Your task to perform on an android device: toggle pop-ups in chrome Image 0: 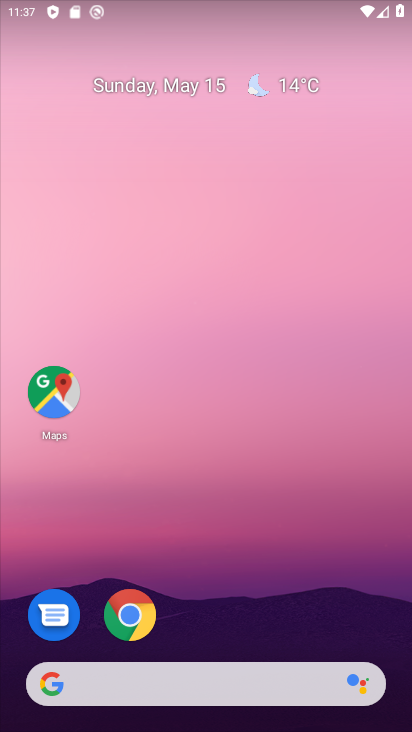
Step 0: drag from (301, 537) to (218, 73)
Your task to perform on an android device: toggle pop-ups in chrome Image 1: 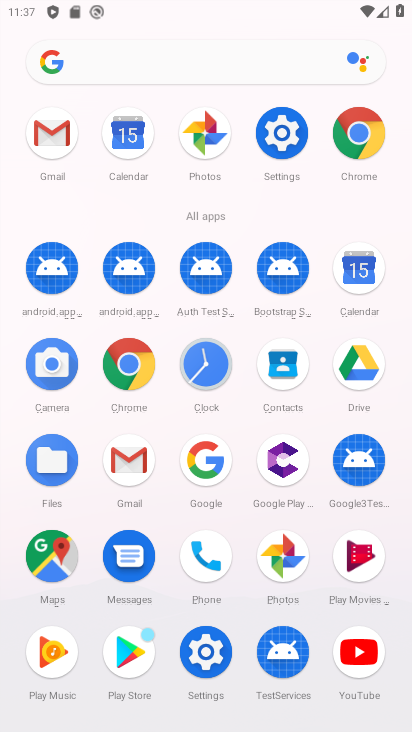
Step 1: click (375, 146)
Your task to perform on an android device: toggle pop-ups in chrome Image 2: 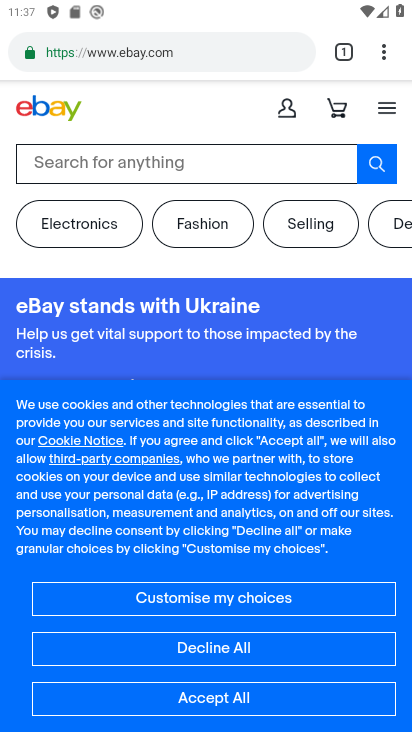
Step 2: drag from (386, 49) to (196, 624)
Your task to perform on an android device: toggle pop-ups in chrome Image 3: 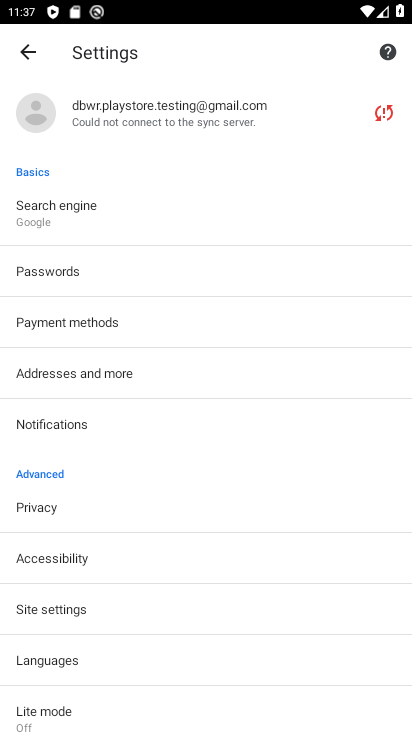
Step 3: drag from (147, 650) to (241, 250)
Your task to perform on an android device: toggle pop-ups in chrome Image 4: 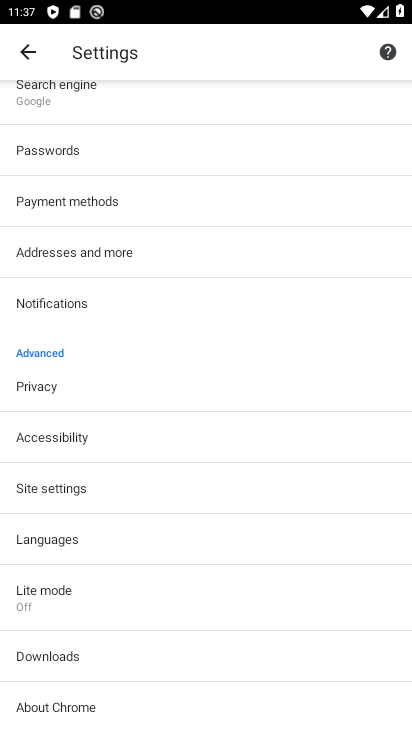
Step 4: click (133, 479)
Your task to perform on an android device: toggle pop-ups in chrome Image 5: 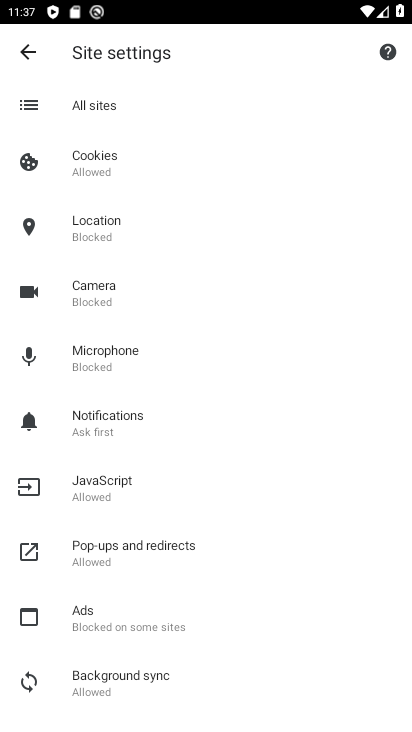
Step 5: click (108, 563)
Your task to perform on an android device: toggle pop-ups in chrome Image 6: 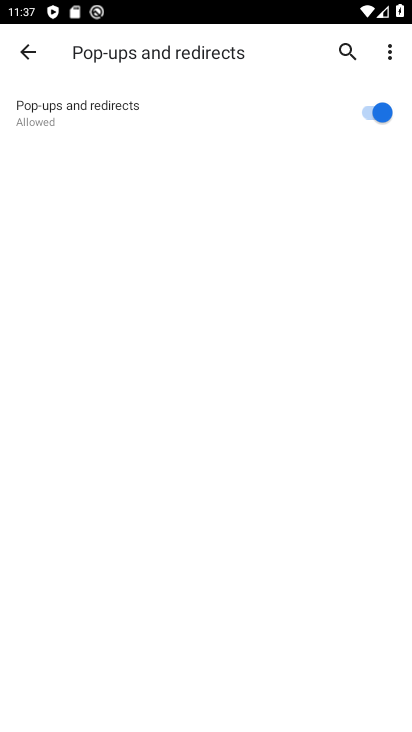
Step 6: click (386, 112)
Your task to perform on an android device: toggle pop-ups in chrome Image 7: 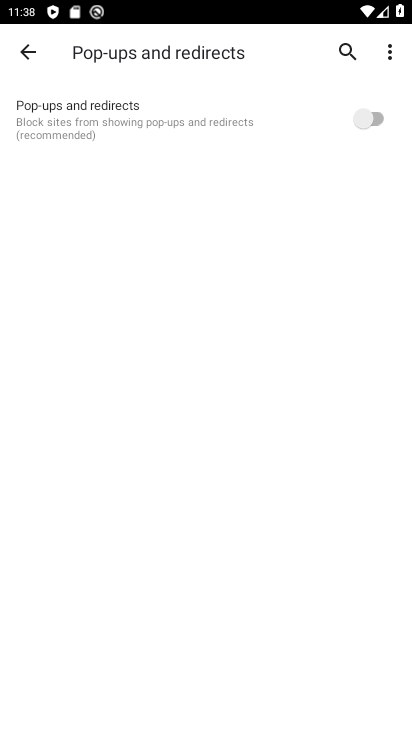
Step 7: task complete